Your task to perform on an android device: Go to location settings Image 0: 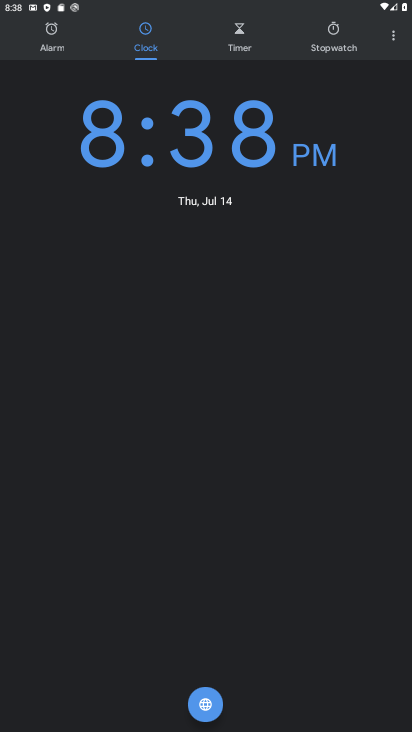
Step 0: press home button
Your task to perform on an android device: Go to location settings Image 1: 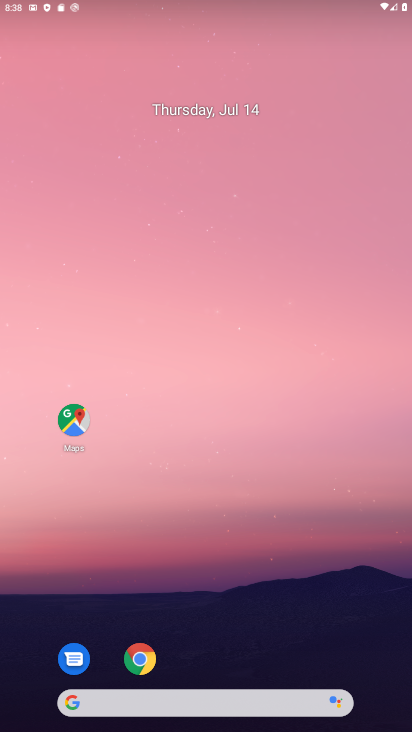
Step 1: drag from (260, 472) to (252, 96)
Your task to perform on an android device: Go to location settings Image 2: 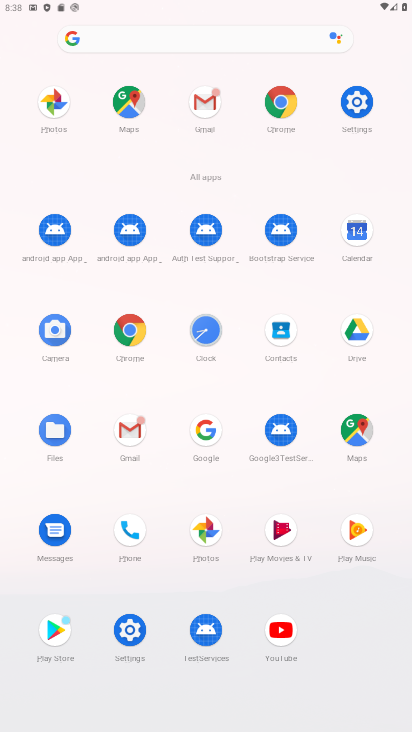
Step 2: click (351, 102)
Your task to perform on an android device: Go to location settings Image 3: 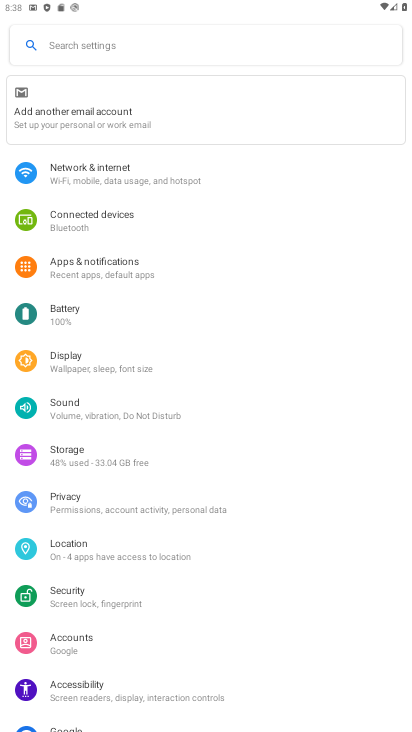
Step 3: click (104, 539)
Your task to perform on an android device: Go to location settings Image 4: 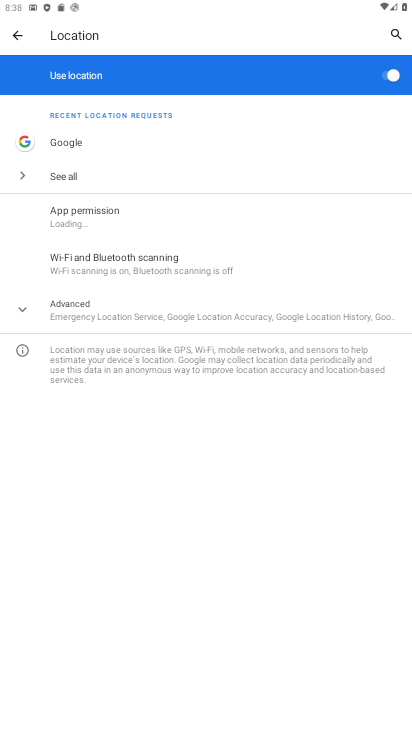
Step 4: task complete